Your task to perform on an android device: see tabs open on other devices in the chrome app Image 0: 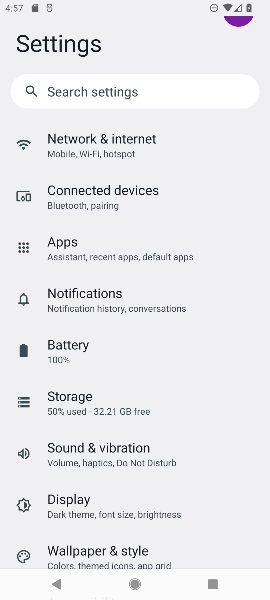
Step 0: press home button
Your task to perform on an android device: see tabs open on other devices in the chrome app Image 1: 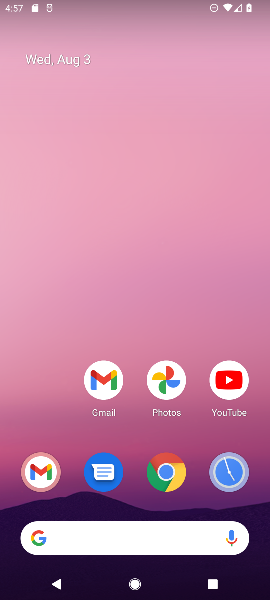
Step 1: drag from (197, 499) to (110, 50)
Your task to perform on an android device: see tabs open on other devices in the chrome app Image 2: 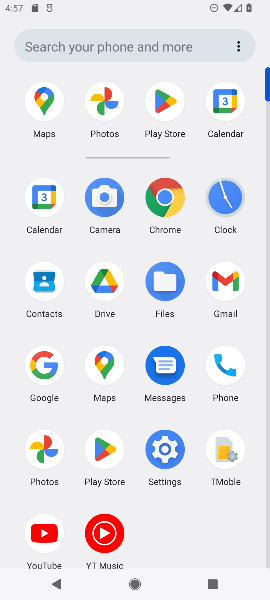
Step 2: click (175, 200)
Your task to perform on an android device: see tabs open on other devices in the chrome app Image 3: 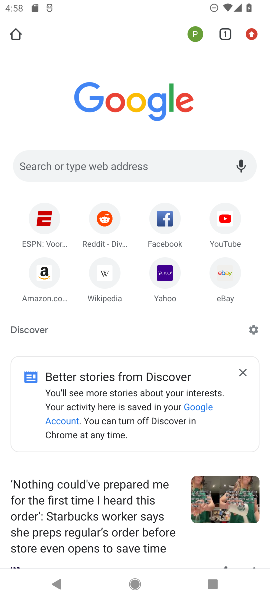
Step 3: task complete